Your task to perform on an android device: toggle notification dots Image 0: 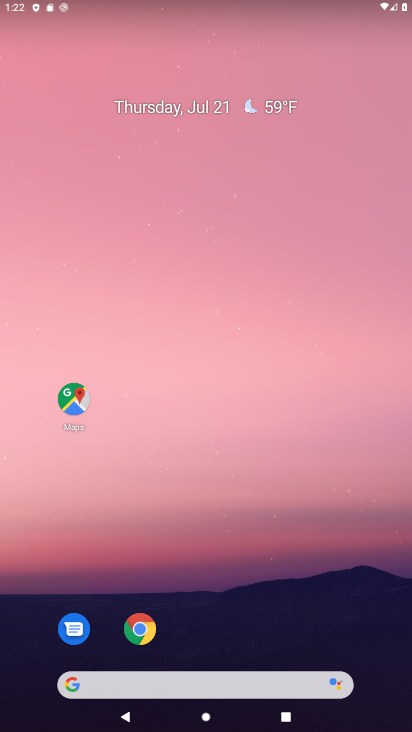
Step 0: drag from (236, 610) to (215, 165)
Your task to perform on an android device: toggle notification dots Image 1: 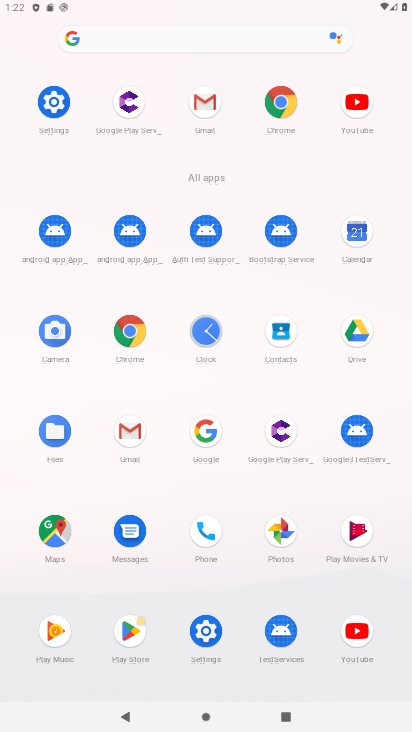
Step 1: click (65, 107)
Your task to perform on an android device: toggle notification dots Image 2: 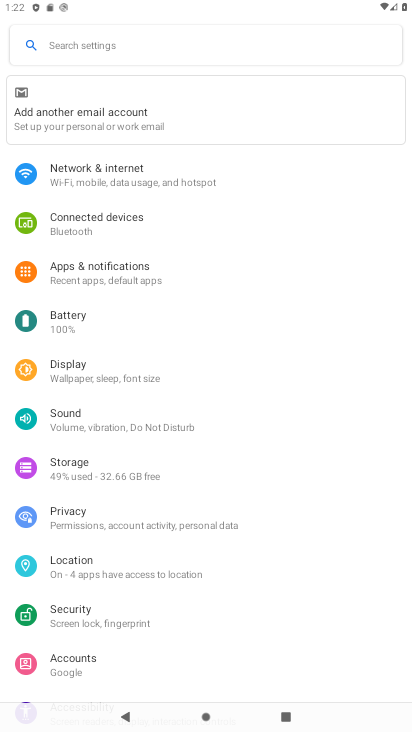
Step 2: click (141, 271)
Your task to perform on an android device: toggle notification dots Image 3: 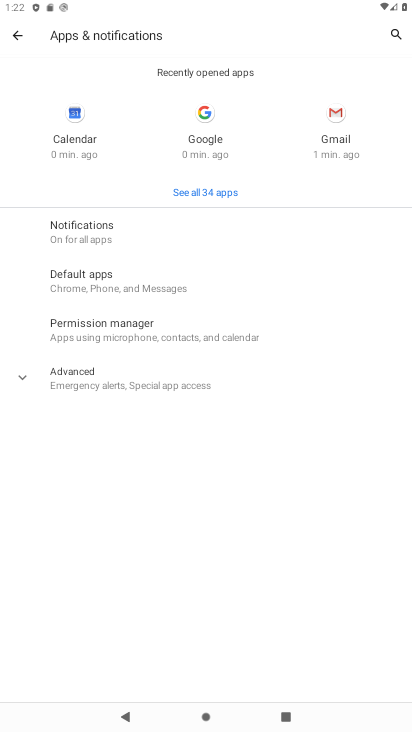
Step 3: click (64, 234)
Your task to perform on an android device: toggle notification dots Image 4: 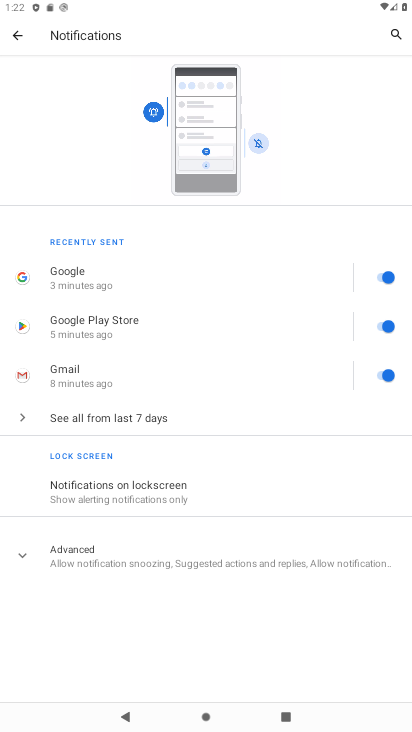
Step 4: click (115, 549)
Your task to perform on an android device: toggle notification dots Image 5: 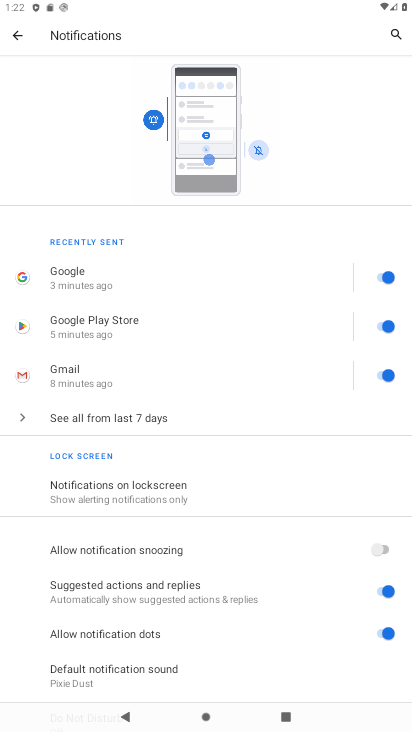
Step 5: click (377, 642)
Your task to perform on an android device: toggle notification dots Image 6: 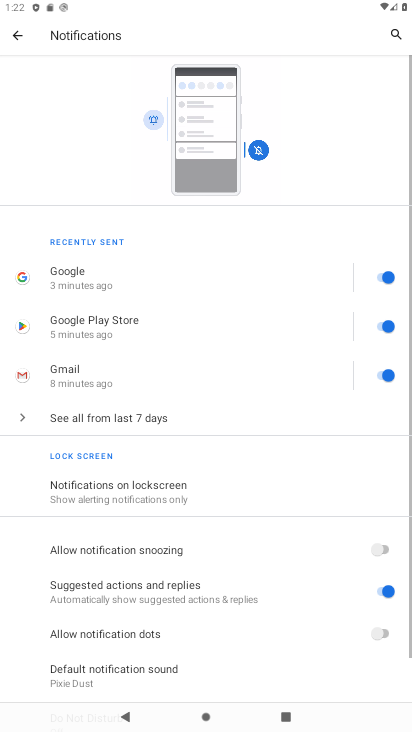
Step 6: task complete